Your task to perform on an android device: Open the web browser Image 0: 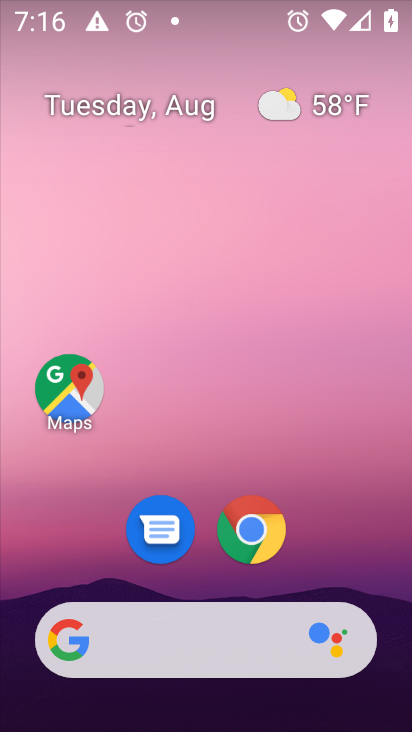
Step 0: press home button
Your task to perform on an android device: Open the web browser Image 1: 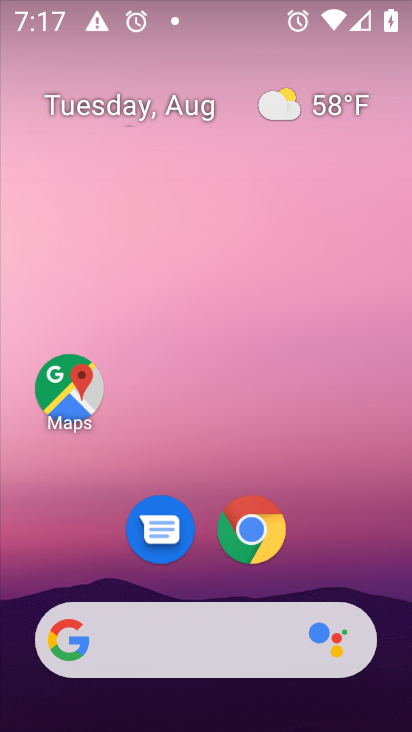
Step 1: click (54, 645)
Your task to perform on an android device: Open the web browser Image 2: 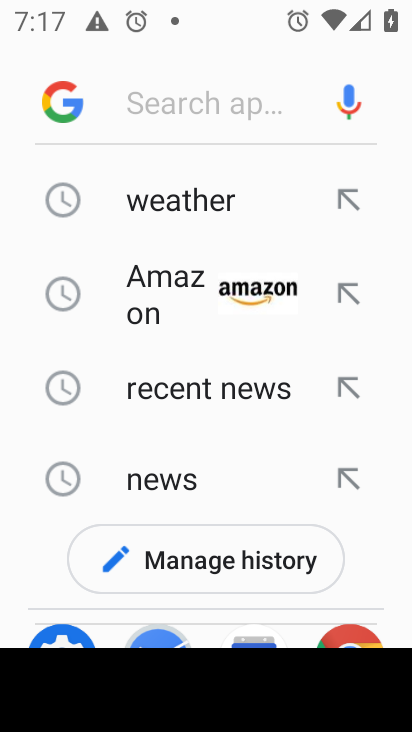
Step 2: task complete